Your task to perform on an android device: Show the shopping cart on ebay.com. Image 0: 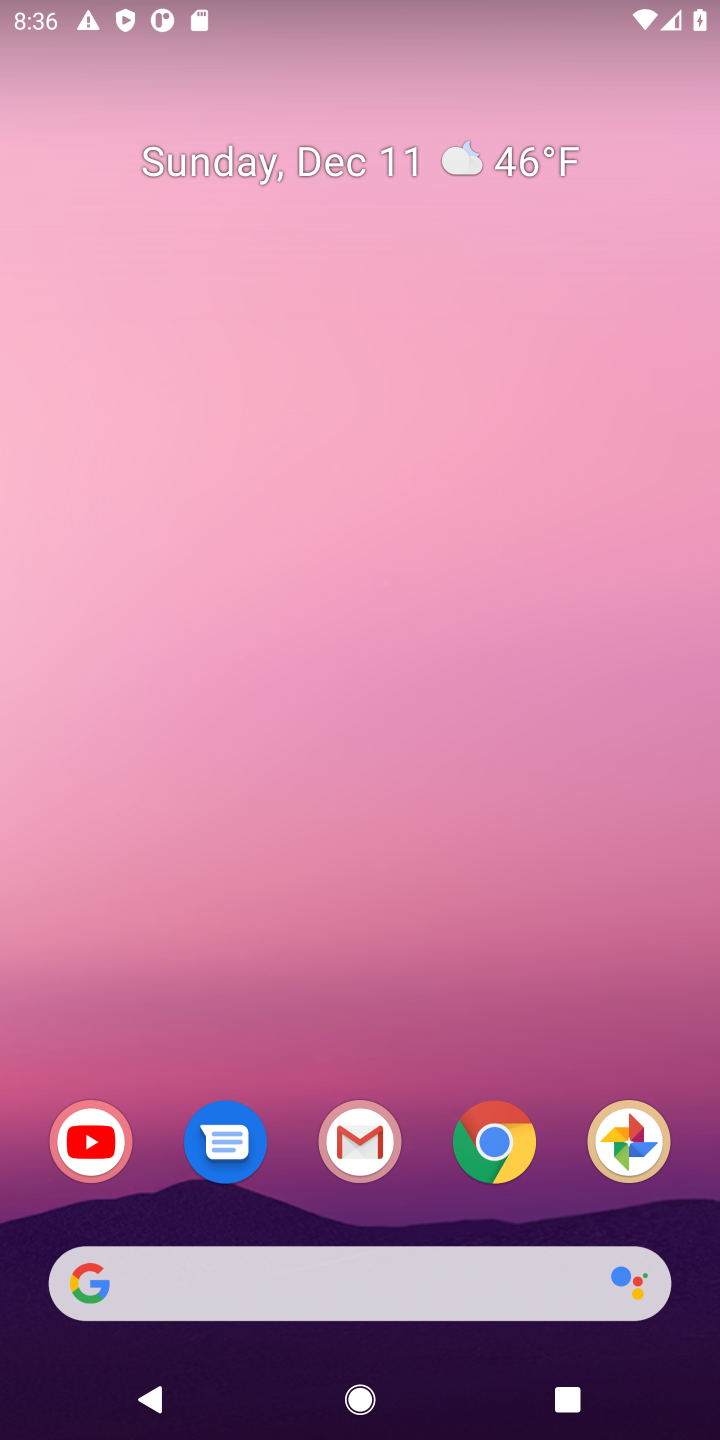
Step 0: click (500, 1139)
Your task to perform on an android device: Show the shopping cart on ebay.com. Image 1: 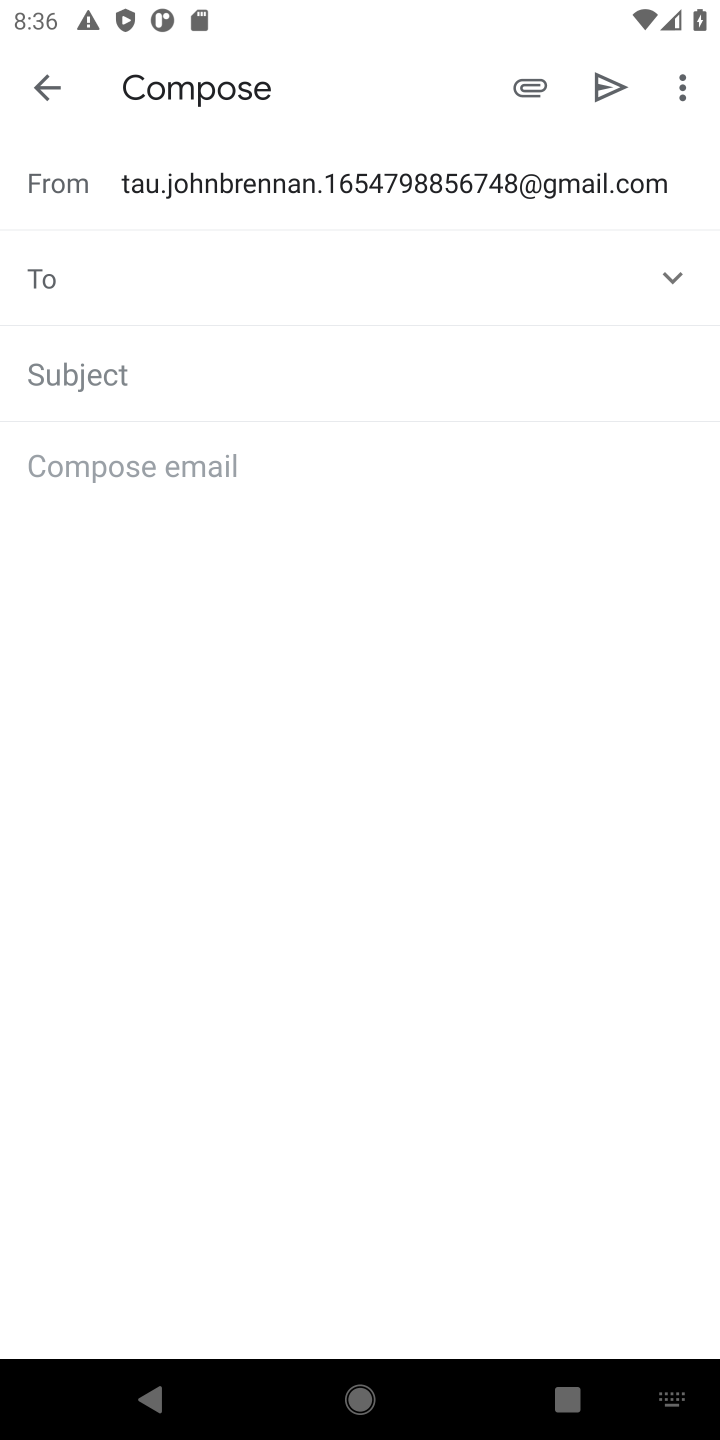
Step 1: press home button
Your task to perform on an android device: Show the shopping cart on ebay.com. Image 2: 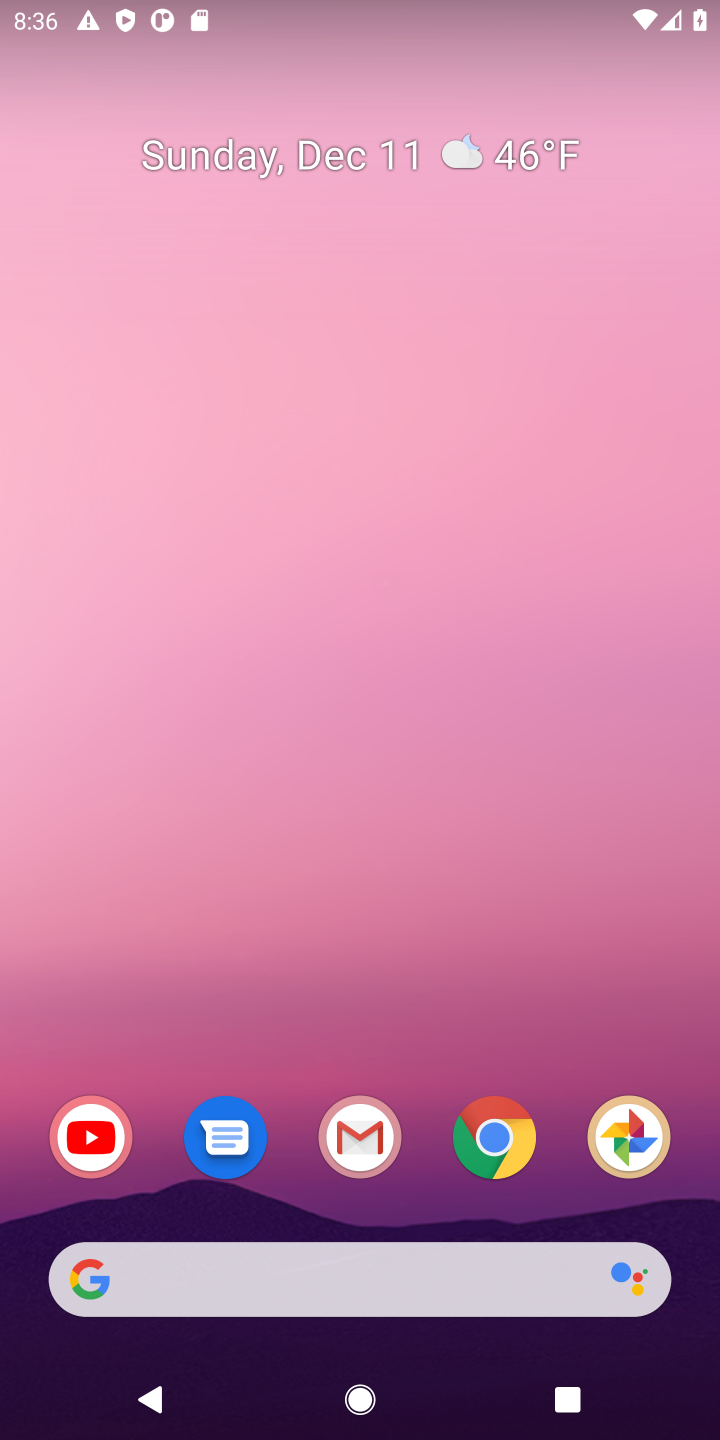
Step 2: click (486, 1146)
Your task to perform on an android device: Show the shopping cart on ebay.com. Image 3: 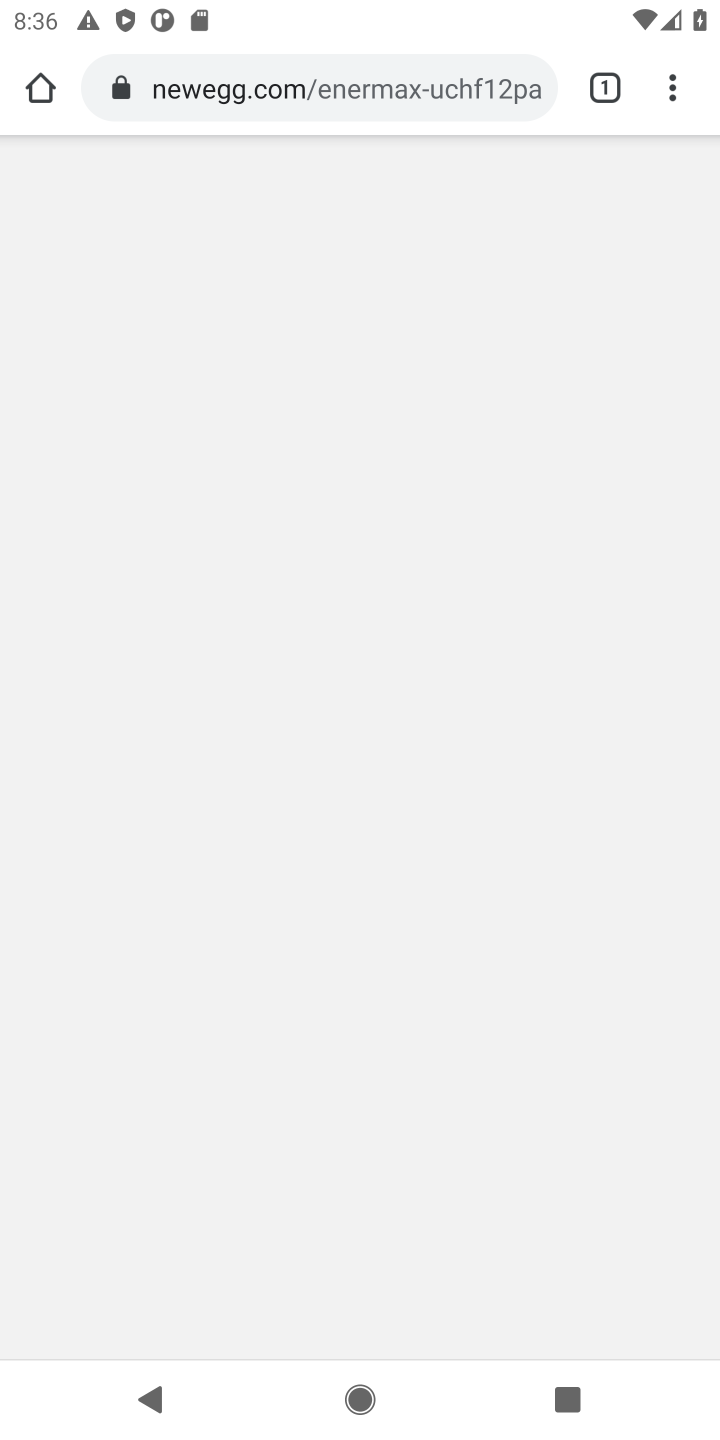
Step 3: click (304, 87)
Your task to perform on an android device: Show the shopping cart on ebay.com. Image 4: 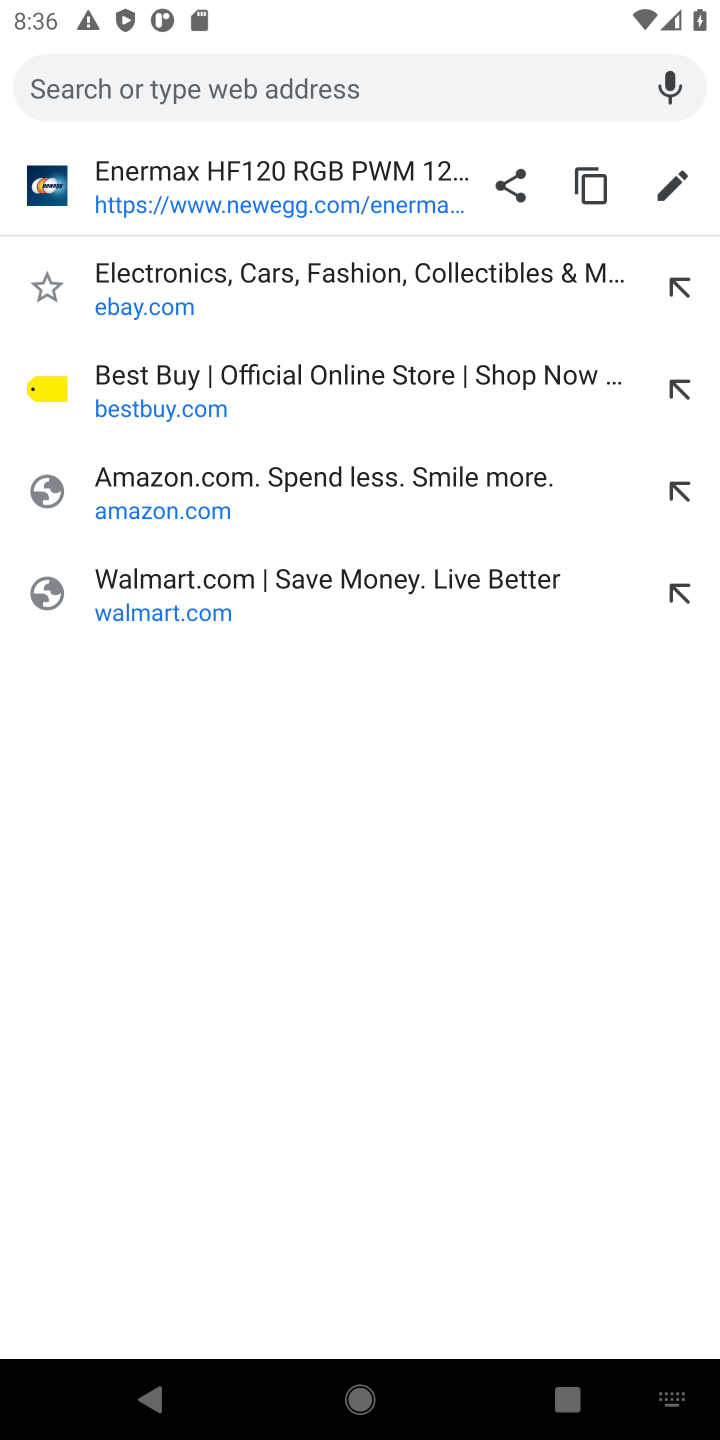
Step 4: click (239, 286)
Your task to perform on an android device: Show the shopping cart on ebay.com. Image 5: 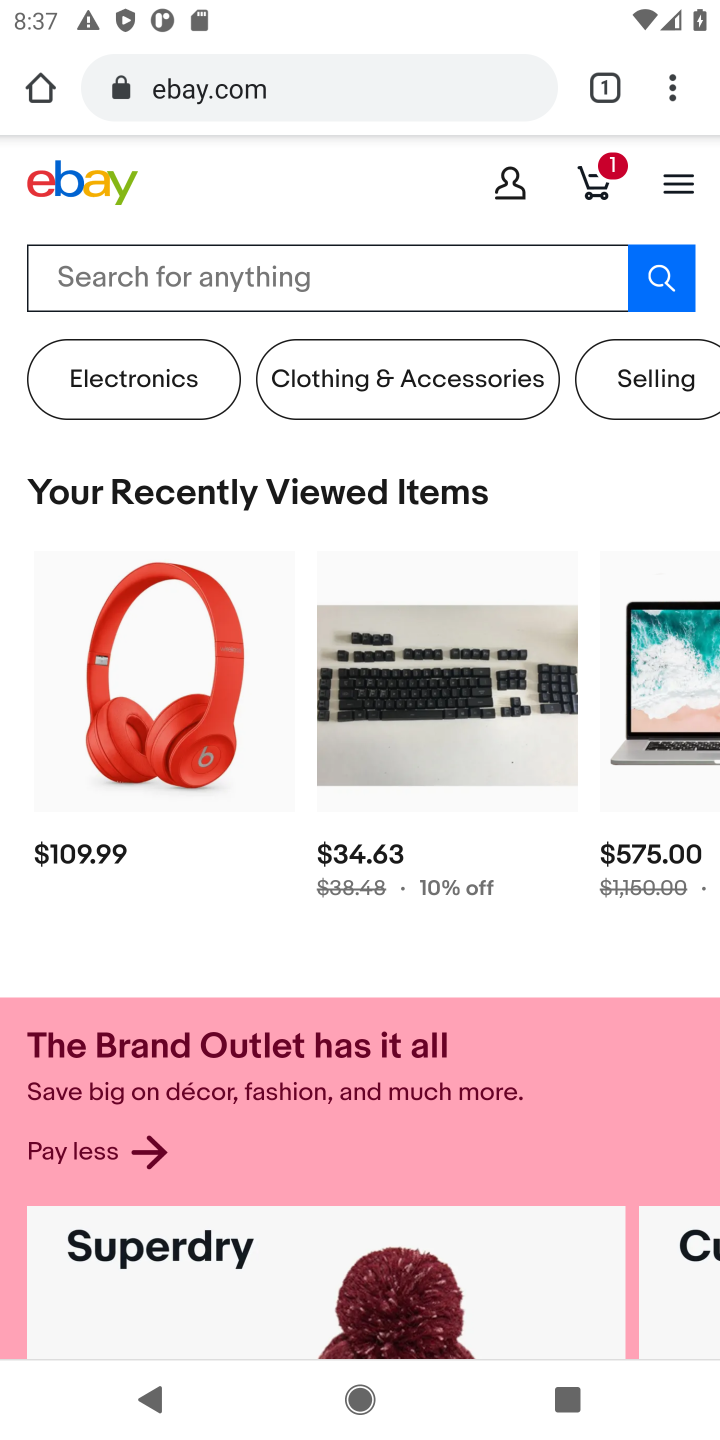
Step 5: click (276, 270)
Your task to perform on an android device: Show the shopping cart on ebay.com. Image 6: 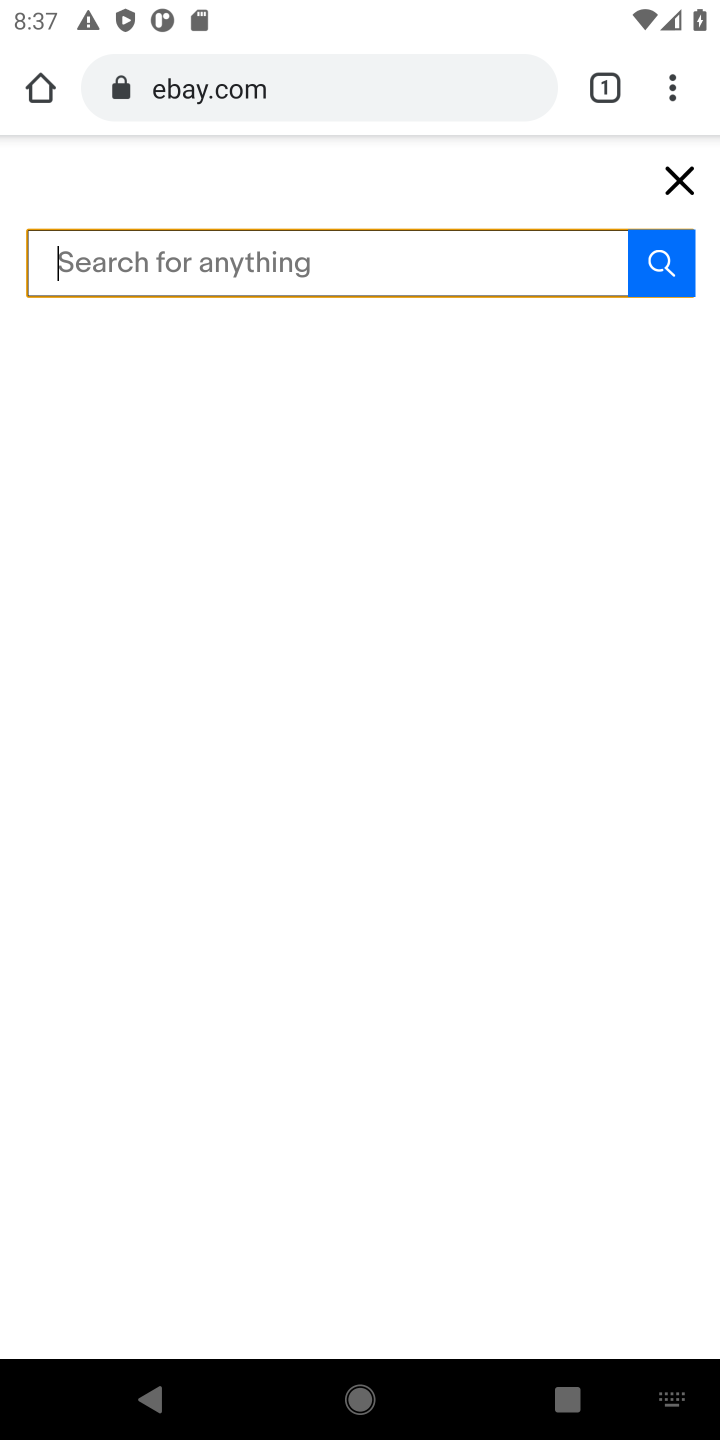
Step 6: click (603, 180)
Your task to perform on an android device: Show the shopping cart on ebay.com. Image 7: 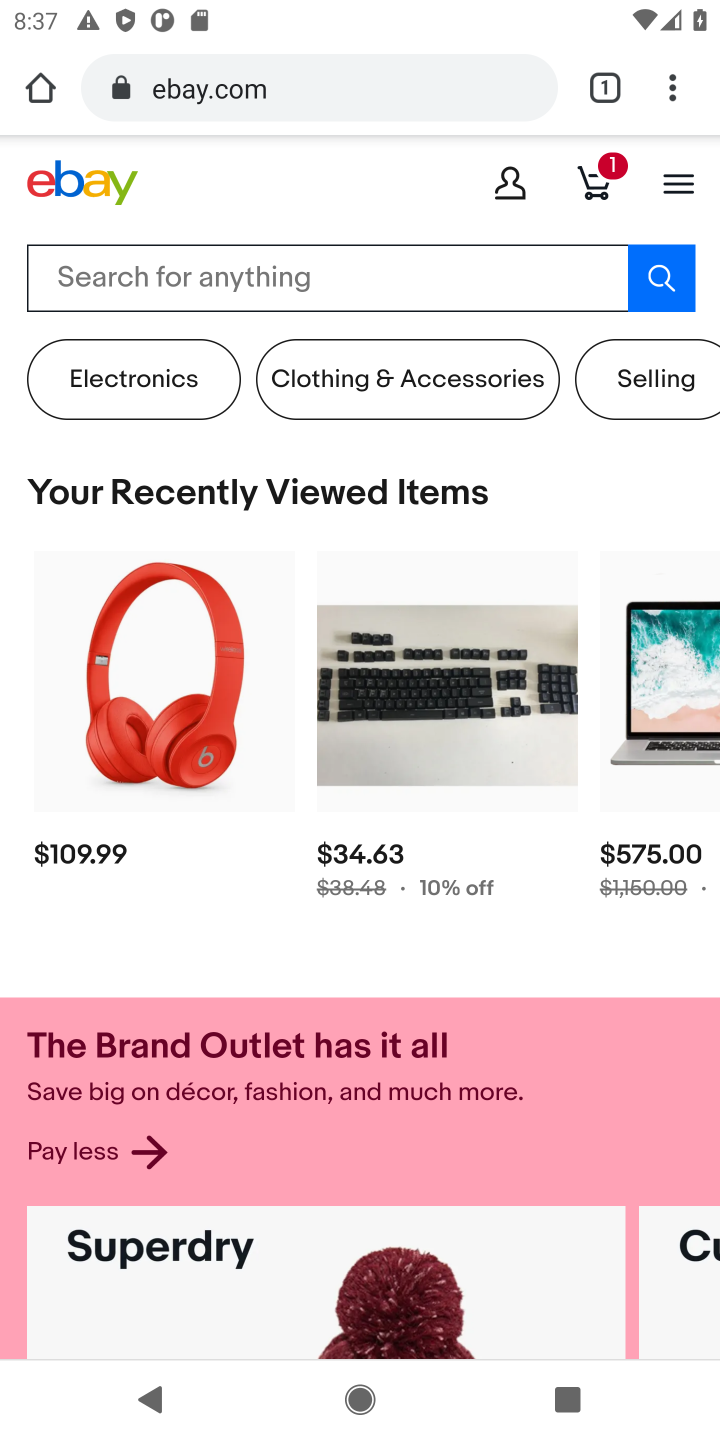
Step 7: click (605, 184)
Your task to perform on an android device: Show the shopping cart on ebay.com. Image 8: 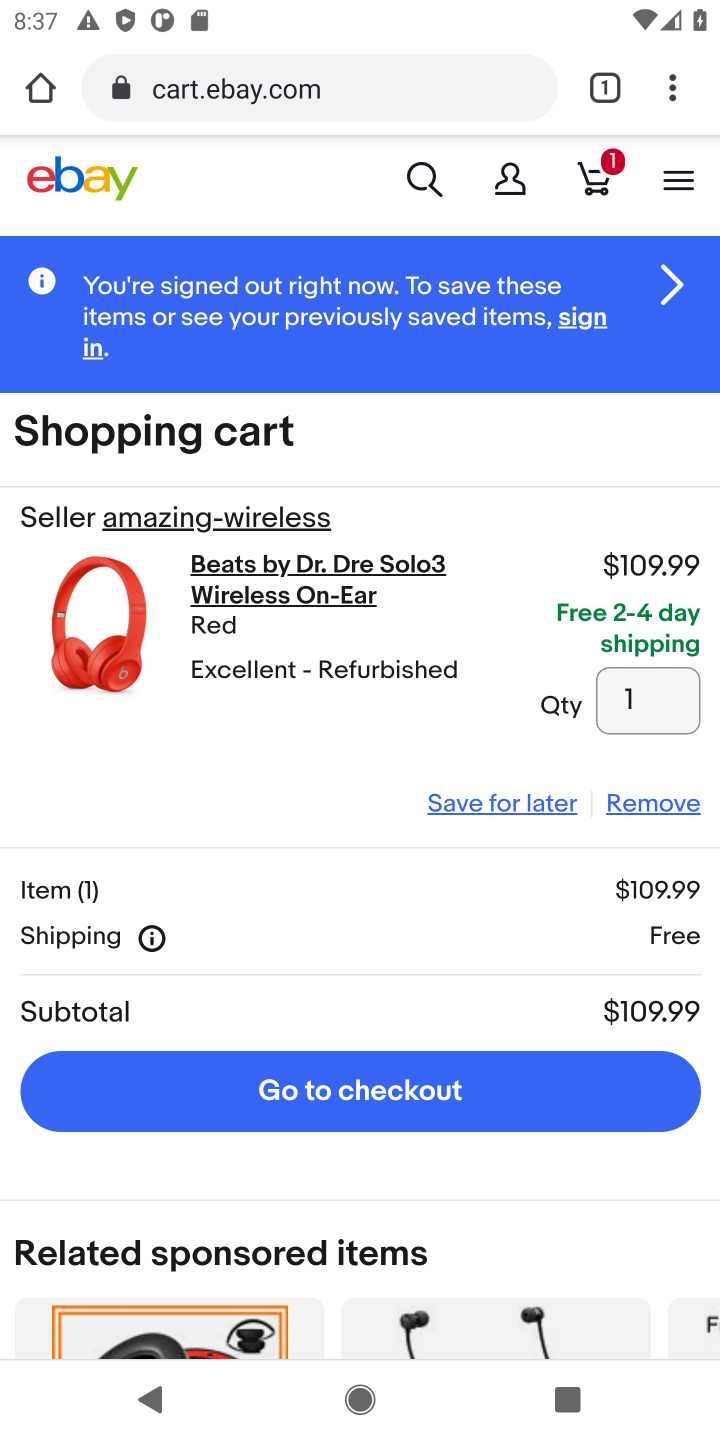
Step 8: click (640, 802)
Your task to perform on an android device: Show the shopping cart on ebay.com. Image 9: 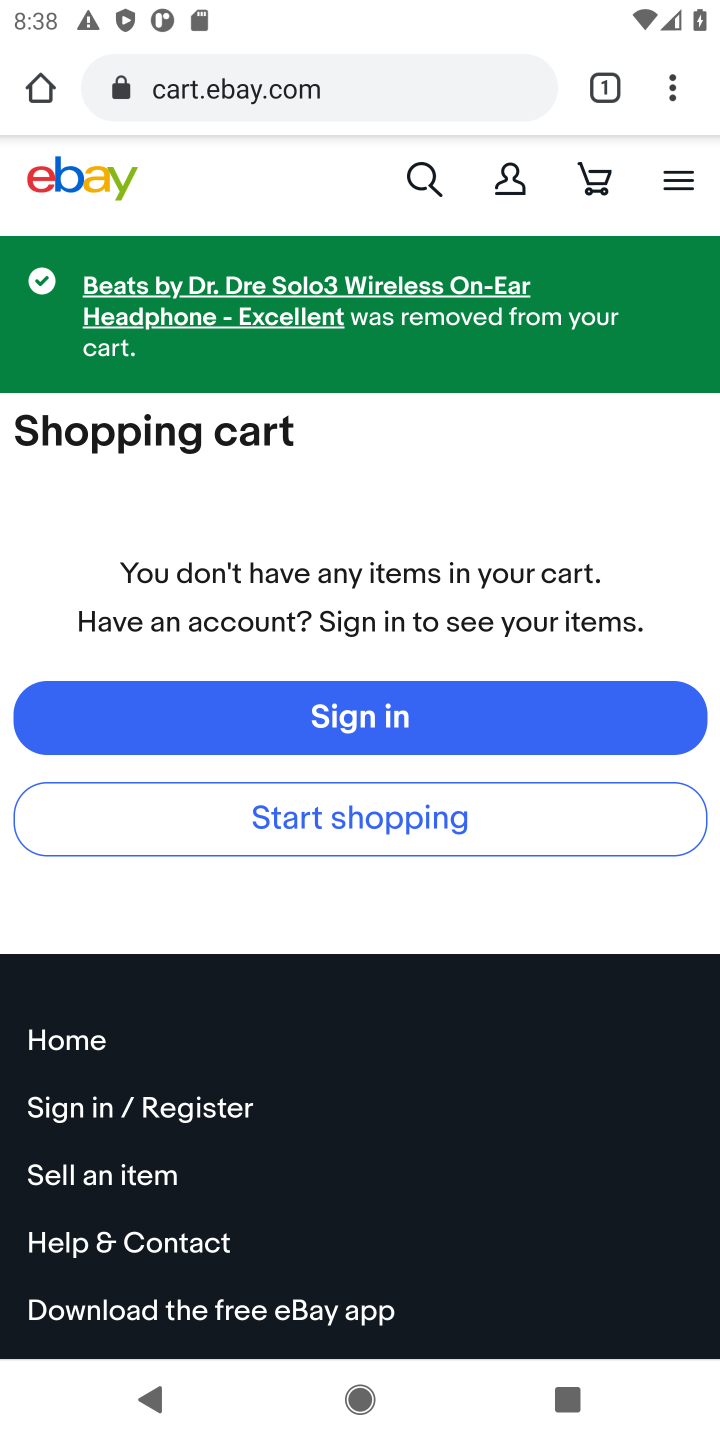
Step 9: task complete